Your task to perform on an android device: Go to Android settings Image 0: 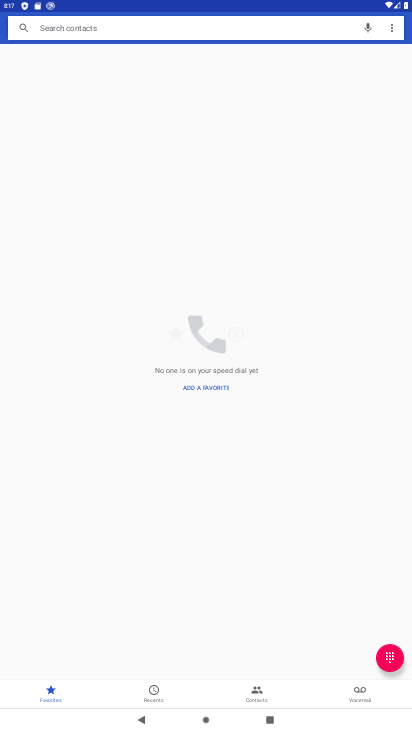
Step 0: press home button
Your task to perform on an android device: Go to Android settings Image 1: 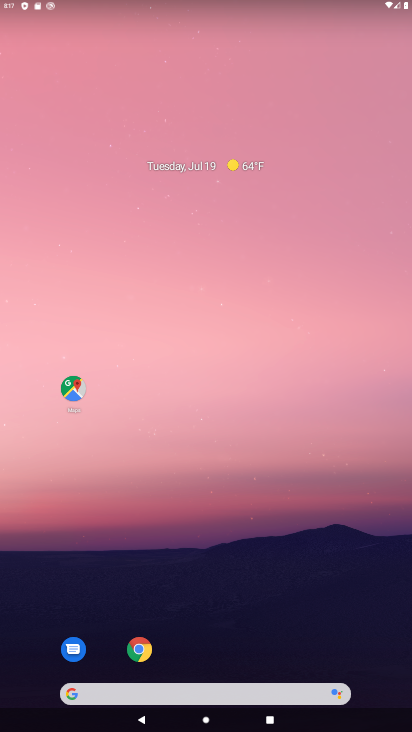
Step 1: drag from (225, 645) to (213, 135)
Your task to perform on an android device: Go to Android settings Image 2: 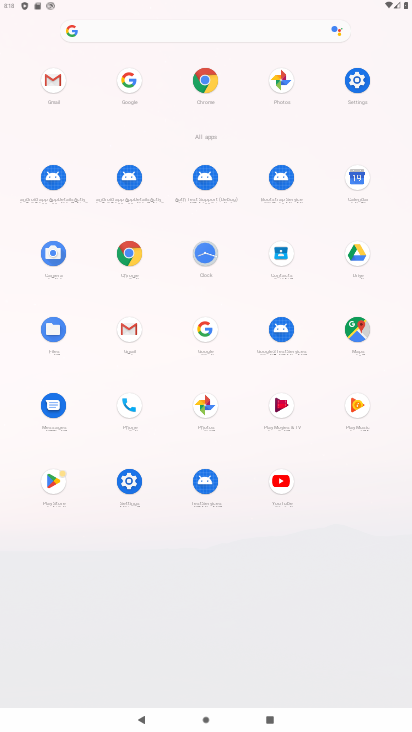
Step 2: click (372, 76)
Your task to perform on an android device: Go to Android settings Image 3: 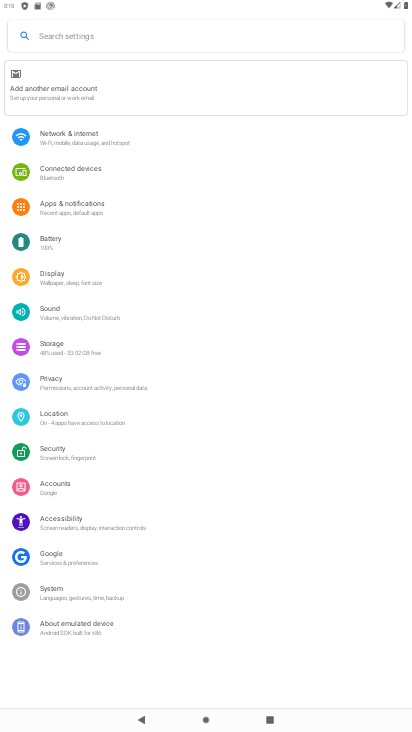
Step 3: task complete